Your task to perform on an android device: allow cookies in the chrome app Image 0: 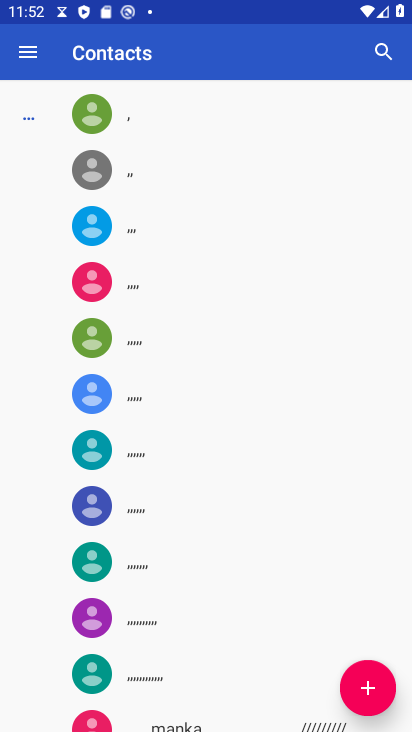
Step 0: press home button
Your task to perform on an android device: allow cookies in the chrome app Image 1: 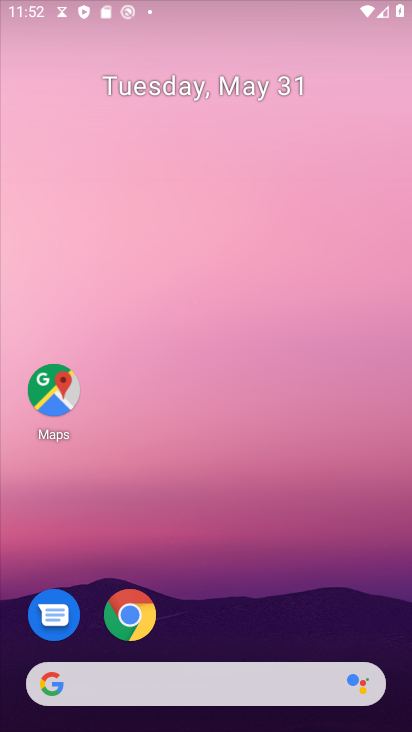
Step 1: drag from (337, 637) to (355, 50)
Your task to perform on an android device: allow cookies in the chrome app Image 2: 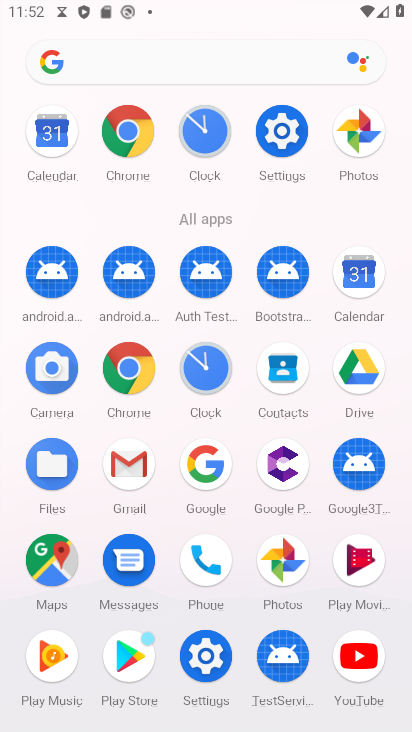
Step 2: click (123, 382)
Your task to perform on an android device: allow cookies in the chrome app Image 3: 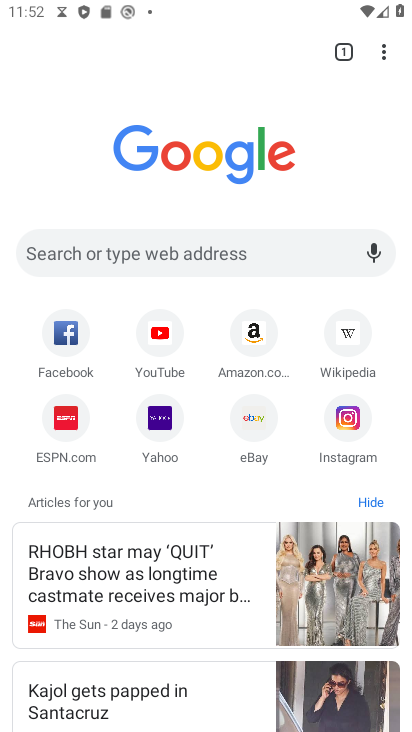
Step 3: drag from (381, 41) to (236, 440)
Your task to perform on an android device: allow cookies in the chrome app Image 4: 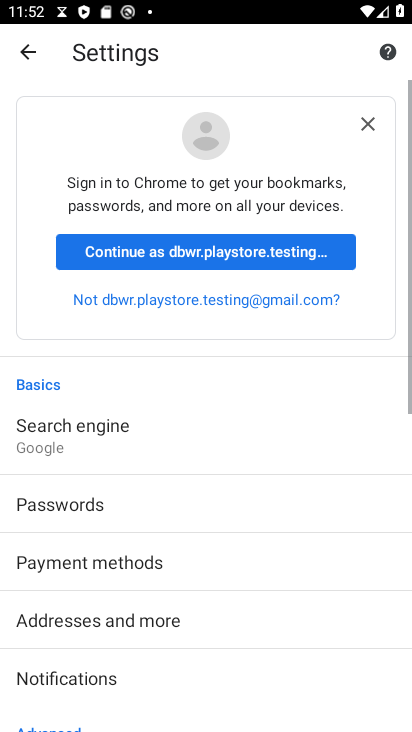
Step 4: drag from (218, 520) to (264, 36)
Your task to perform on an android device: allow cookies in the chrome app Image 5: 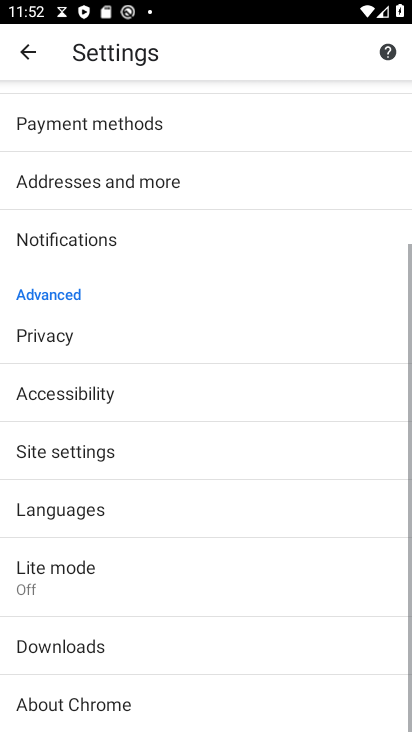
Step 5: drag from (180, 603) to (217, 449)
Your task to perform on an android device: allow cookies in the chrome app Image 6: 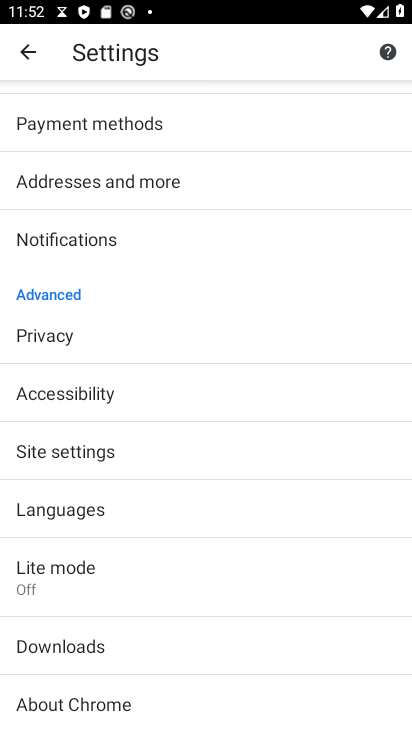
Step 6: click (136, 452)
Your task to perform on an android device: allow cookies in the chrome app Image 7: 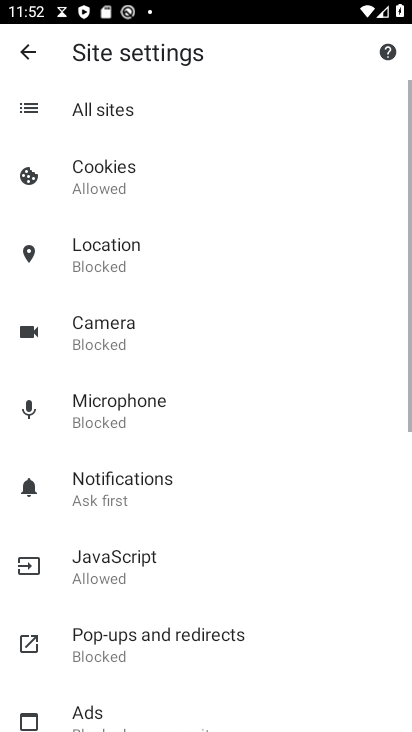
Step 7: click (132, 170)
Your task to perform on an android device: allow cookies in the chrome app Image 8: 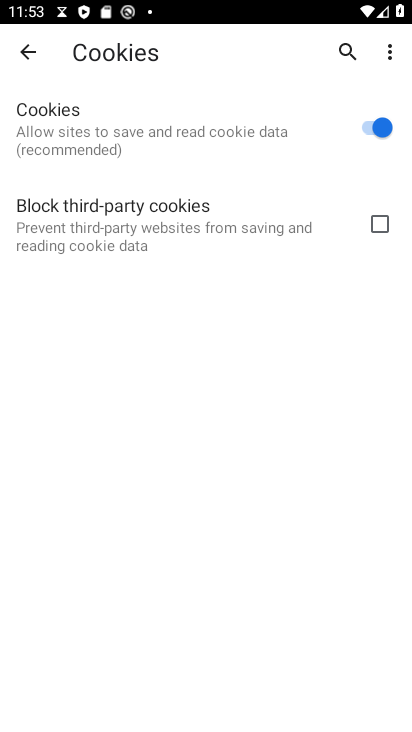
Step 8: task complete